Your task to perform on an android device: turn off smart reply in the gmail app Image 0: 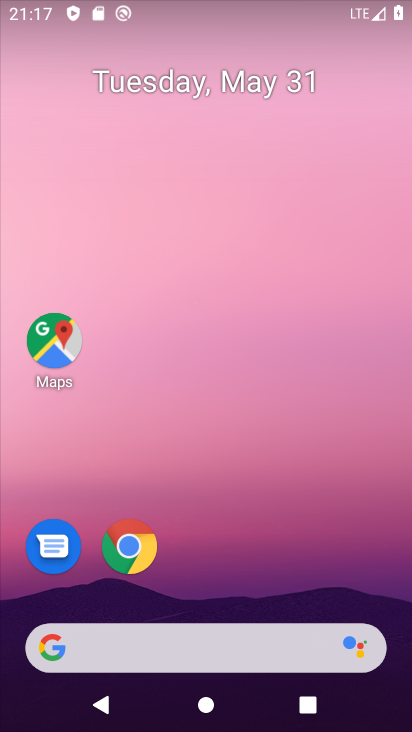
Step 0: drag from (401, 693) to (301, 22)
Your task to perform on an android device: turn off smart reply in the gmail app Image 1: 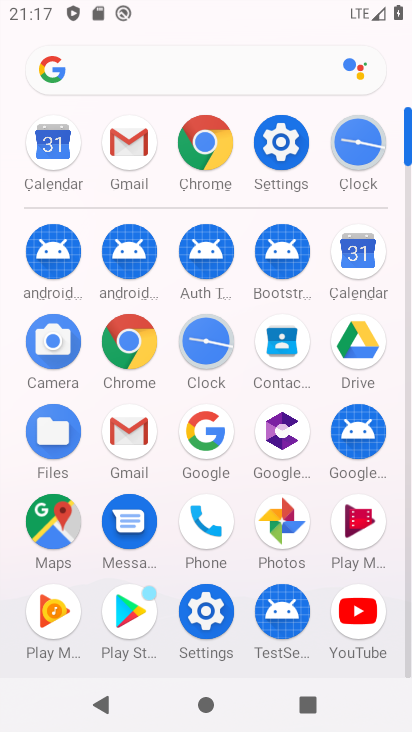
Step 1: click (123, 134)
Your task to perform on an android device: turn off smart reply in the gmail app Image 2: 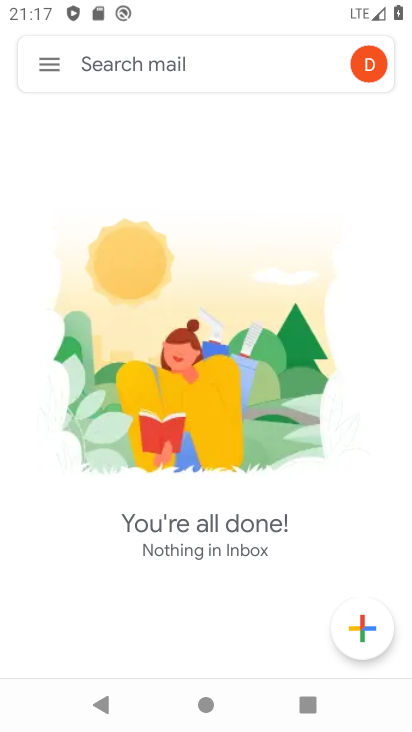
Step 2: click (51, 68)
Your task to perform on an android device: turn off smart reply in the gmail app Image 3: 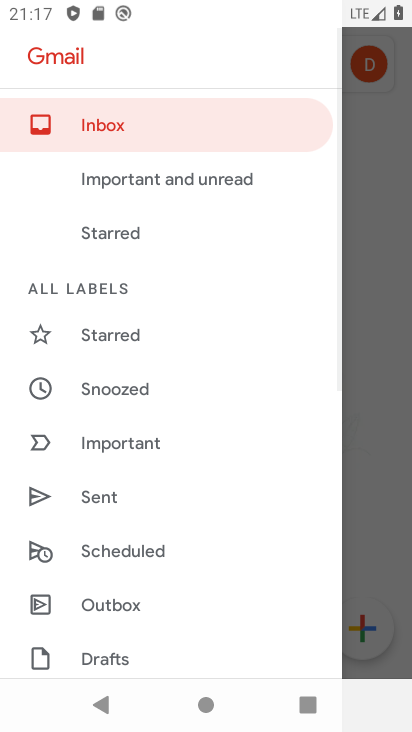
Step 3: drag from (213, 630) to (221, 204)
Your task to perform on an android device: turn off smart reply in the gmail app Image 4: 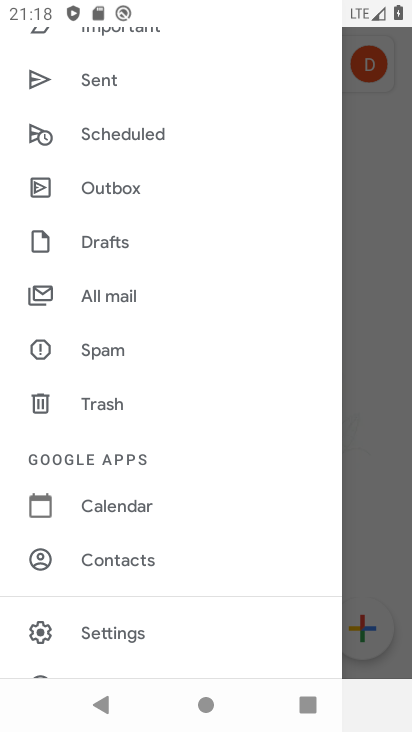
Step 4: click (107, 633)
Your task to perform on an android device: turn off smart reply in the gmail app Image 5: 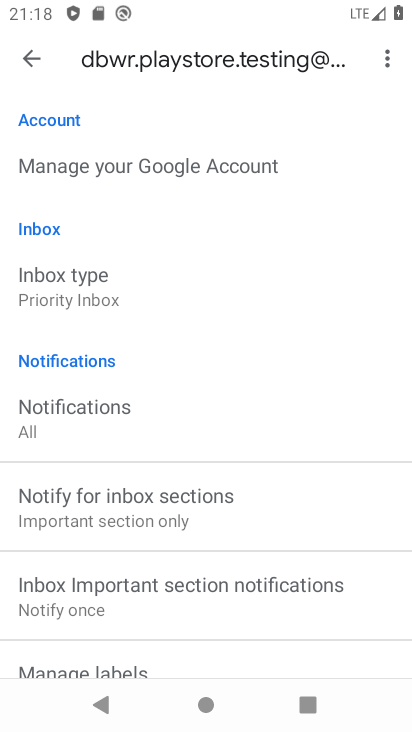
Step 5: drag from (243, 622) to (240, 188)
Your task to perform on an android device: turn off smart reply in the gmail app Image 6: 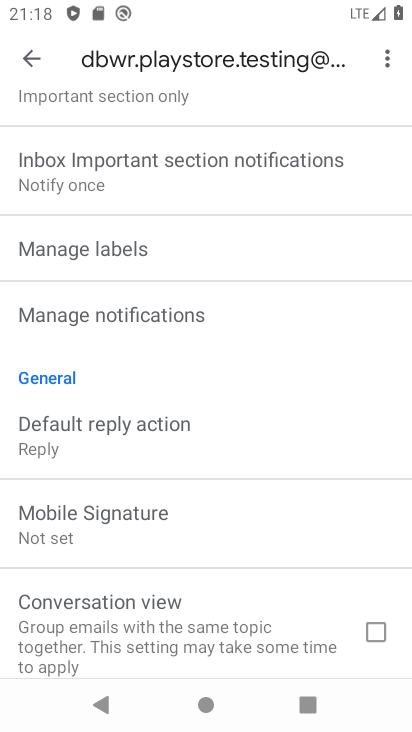
Step 6: drag from (200, 648) to (210, 263)
Your task to perform on an android device: turn off smart reply in the gmail app Image 7: 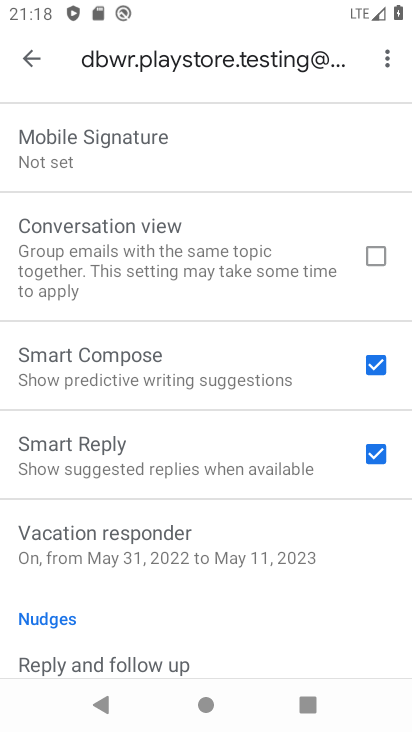
Step 7: drag from (167, 621) to (175, 502)
Your task to perform on an android device: turn off smart reply in the gmail app Image 8: 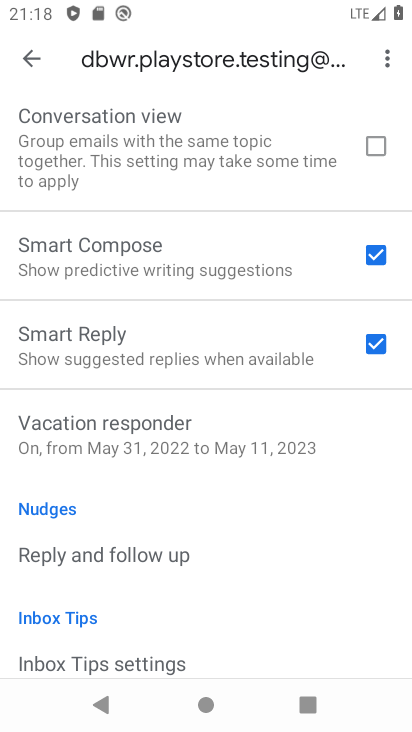
Step 8: click (380, 343)
Your task to perform on an android device: turn off smart reply in the gmail app Image 9: 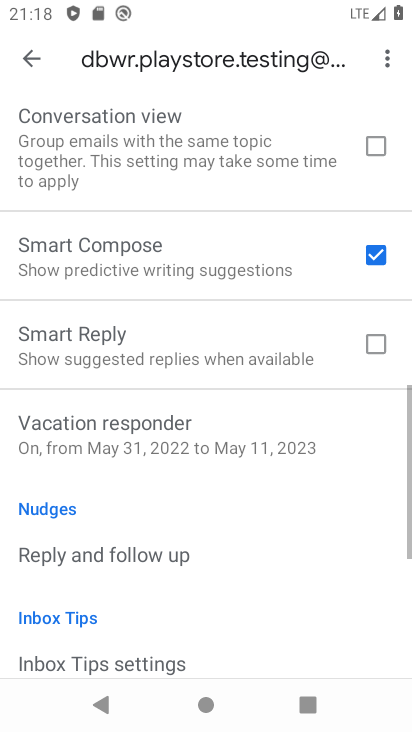
Step 9: task complete